Your task to perform on an android device: delete browsing data in the chrome app Image 0: 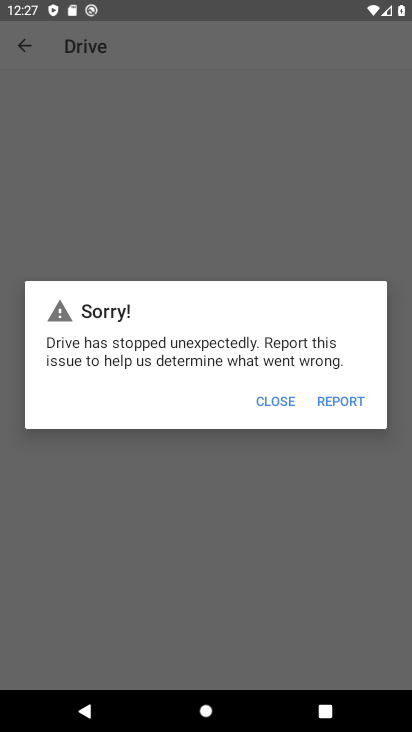
Step 0: press home button
Your task to perform on an android device: delete browsing data in the chrome app Image 1: 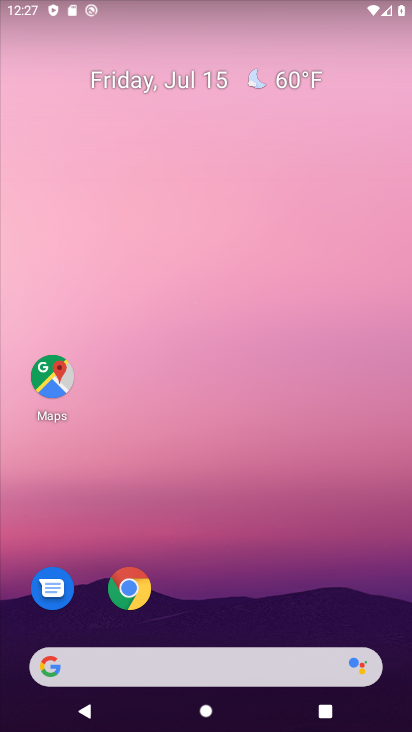
Step 1: click (131, 591)
Your task to perform on an android device: delete browsing data in the chrome app Image 2: 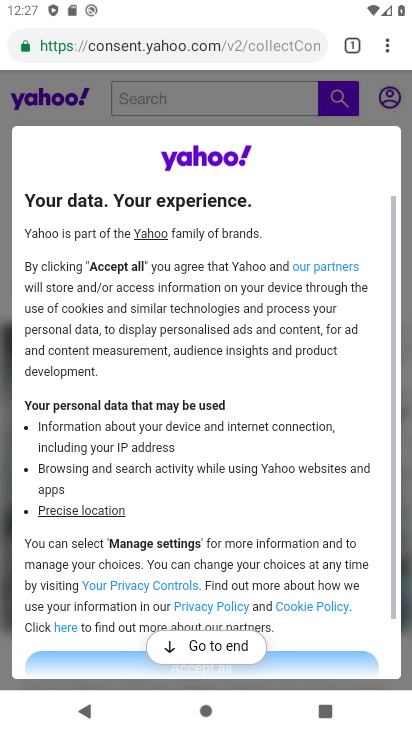
Step 2: click (392, 46)
Your task to perform on an android device: delete browsing data in the chrome app Image 3: 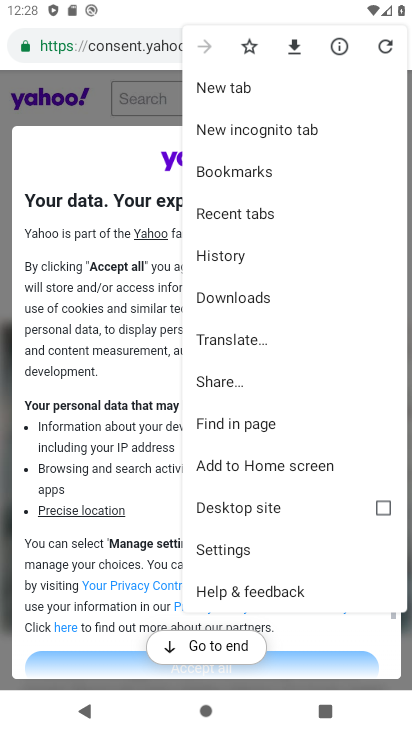
Step 3: click (232, 265)
Your task to perform on an android device: delete browsing data in the chrome app Image 4: 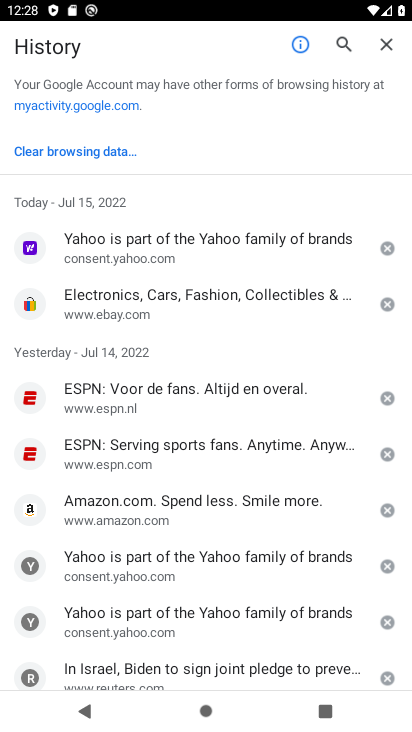
Step 4: click (97, 147)
Your task to perform on an android device: delete browsing data in the chrome app Image 5: 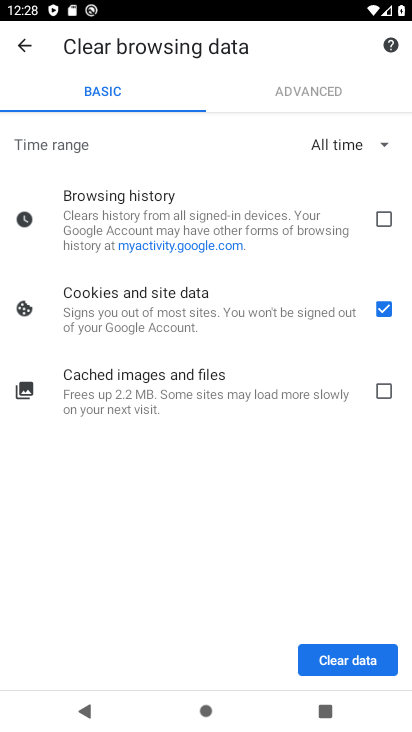
Step 5: click (381, 391)
Your task to perform on an android device: delete browsing data in the chrome app Image 6: 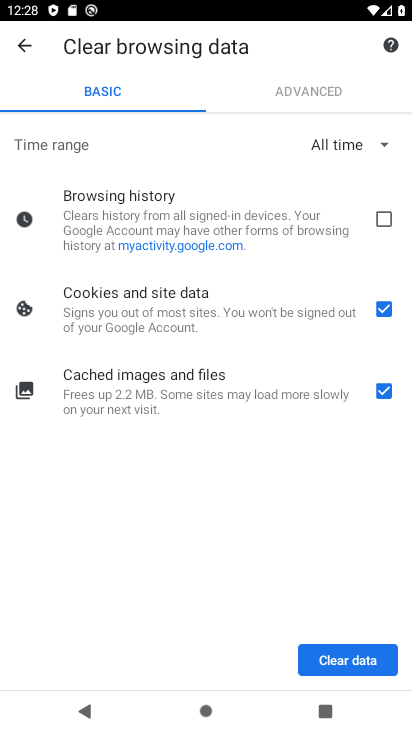
Step 6: click (387, 208)
Your task to perform on an android device: delete browsing data in the chrome app Image 7: 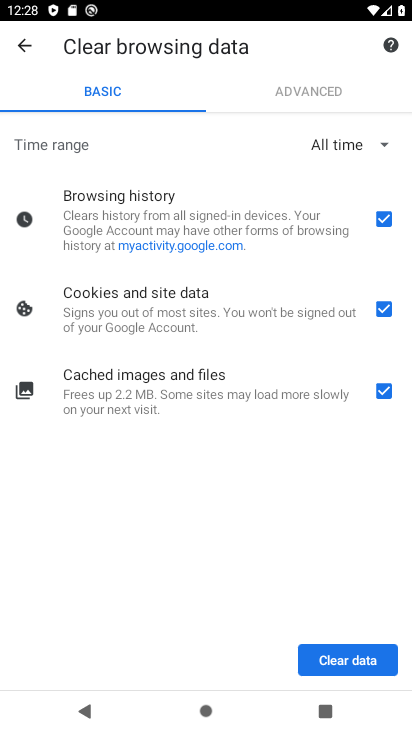
Step 7: click (344, 669)
Your task to perform on an android device: delete browsing data in the chrome app Image 8: 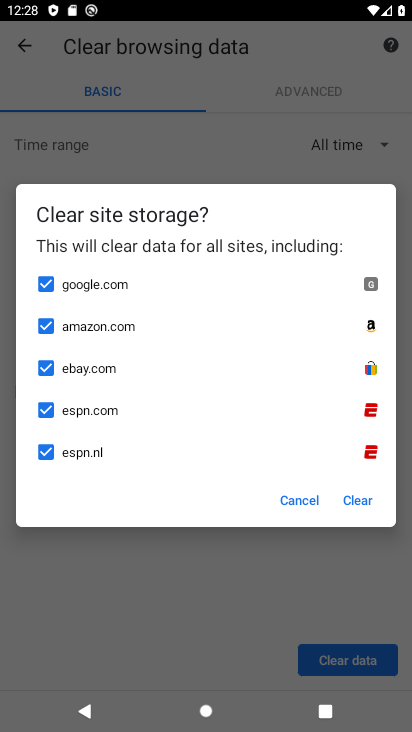
Step 8: click (362, 501)
Your task to perform on an android device: delete browsing data in the chrome app Image 9: 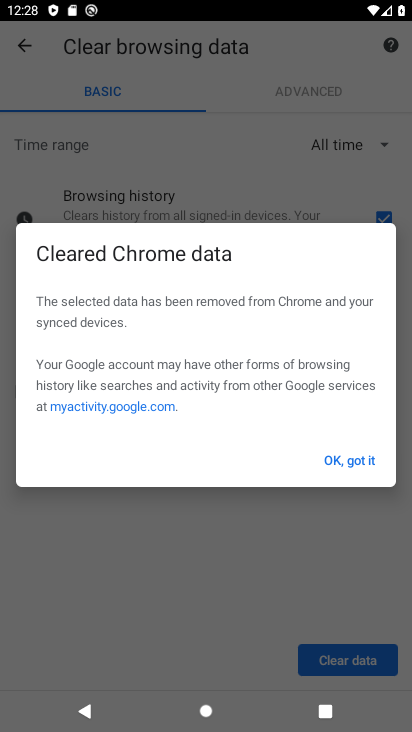
Step 9: click (346, 463)
Your task to perform on an android device: delete browsing data in the chrome app Image 10: 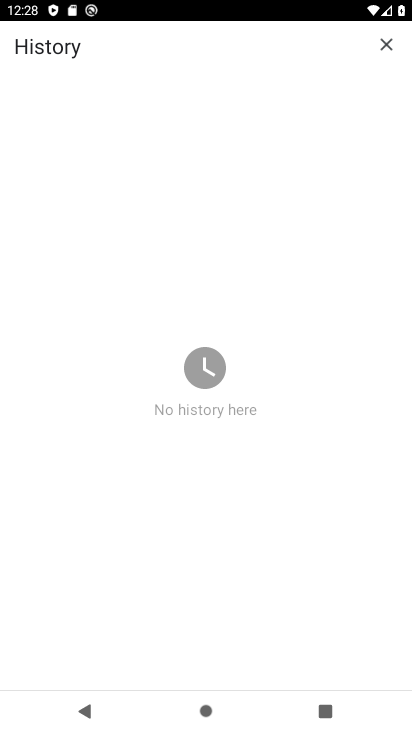
Step 10: task complete